Your task to perform on an android device: What's the news this week? Image 0: 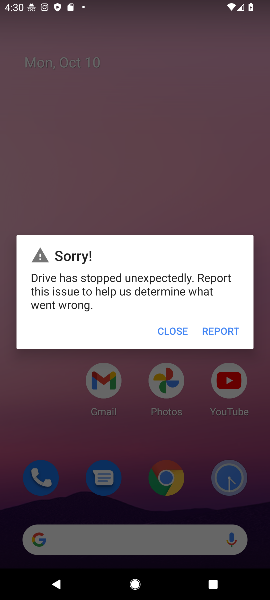
Step 0: click (164, 321)
Your task to perform on an android device: What's the news this week? Image 1: 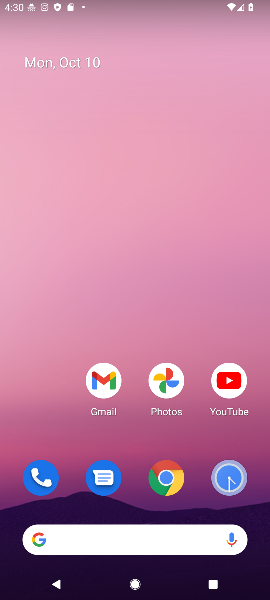
Step 1: click (162, 332)
Your task to perform on an android device: What's the news this week? Image 2: 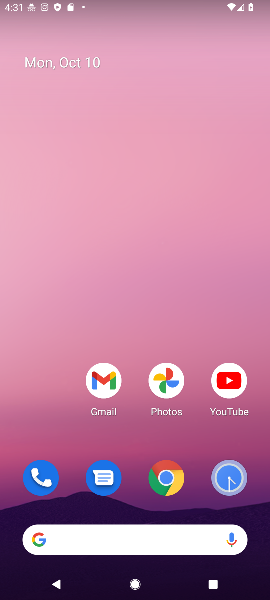
Step 2: click (146, 479)
Your task to perform on an android device: What's the news this week? Image 3: 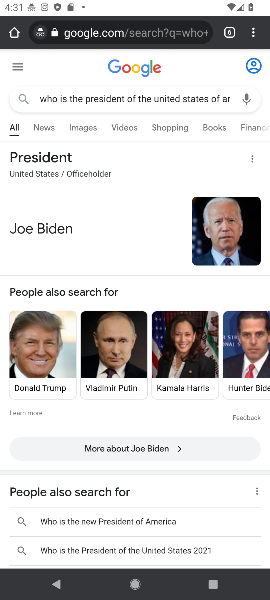
Step 3: click (156, 486)
Your task to perform on an android device: What's the news this week? Image 4: 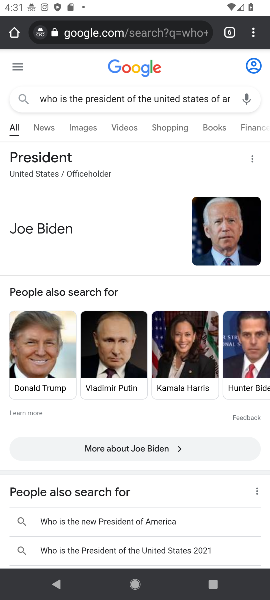
Step 4: click (166, 38)
Your task to perform on an android device: What's the news this week? Image 5: 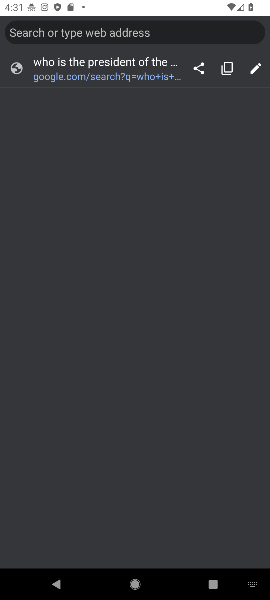
Step 5: type "What's the news this week?"
Your task to perform on an android device: What's the news this week? Image 6: 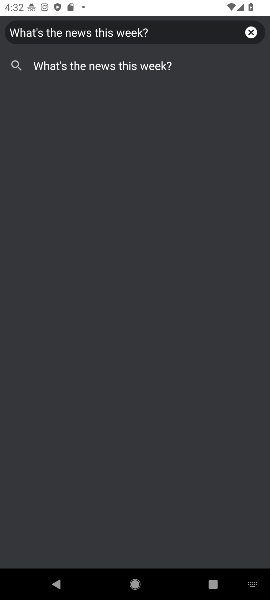
Step 6: click (134, 70)
Your task to perform on an android device: What's the news this week? Image 7: 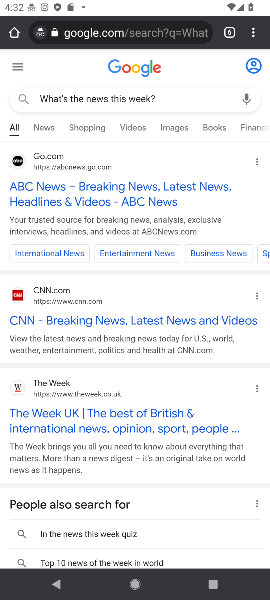
Step 7: click (85, 200)
Your task to perform on an android device: What's the news this week? Image 8: 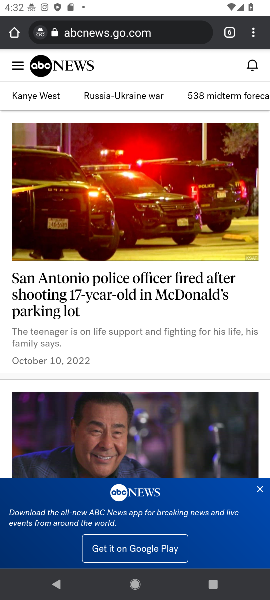
Step 8: task complete